Your task to perform on an android device: Open eBay Image 0: 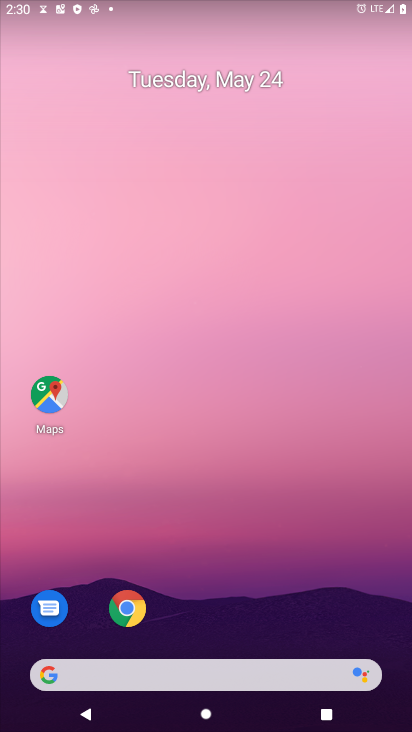
Step 0: drag from (282, 705) to (196, 220)
Your task to perform on an android device: Open eBay Image 1: 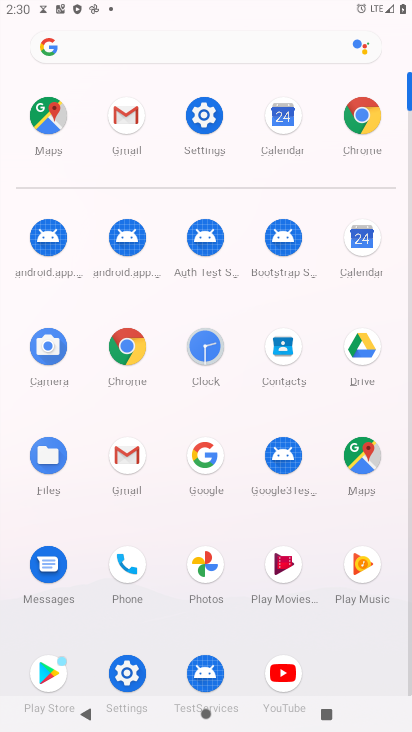
Step 1: click (358, 112)
Your task to perform on an android device: Open eBay Image 2: 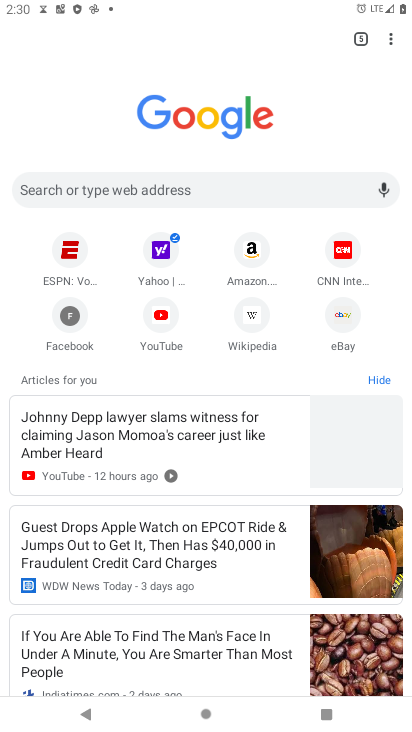
Step 2: click (345, 322)
Your task to perform on an android device: Open eBay Image 3: 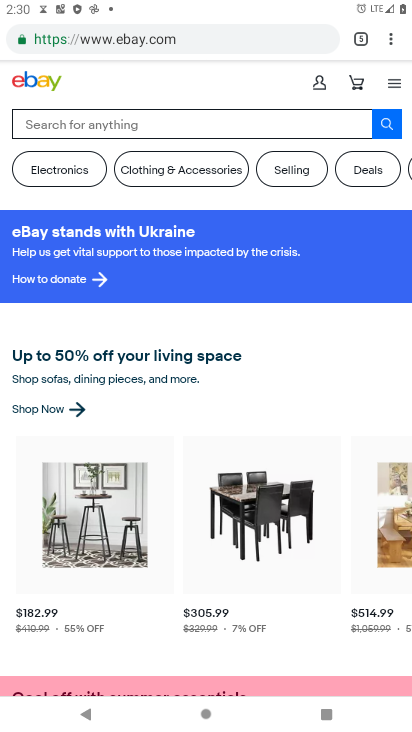
Step 3: task complete